Your task to perform on an android device: see sites visited before in the chrome app Image 0: 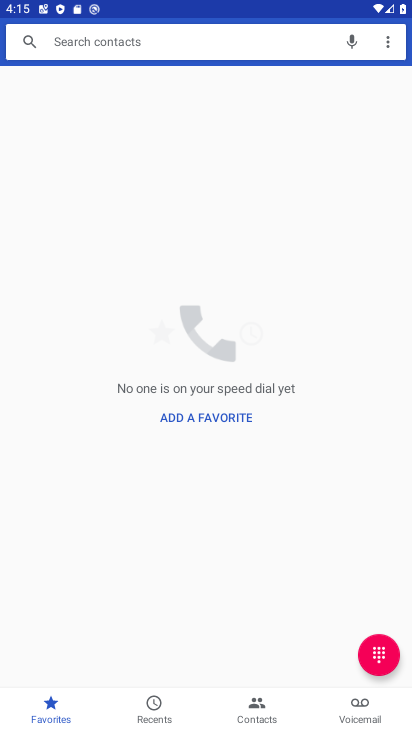
Step 0: press home button
Your task to perform on an android device: see sites visited before in the chrome app Image 1: 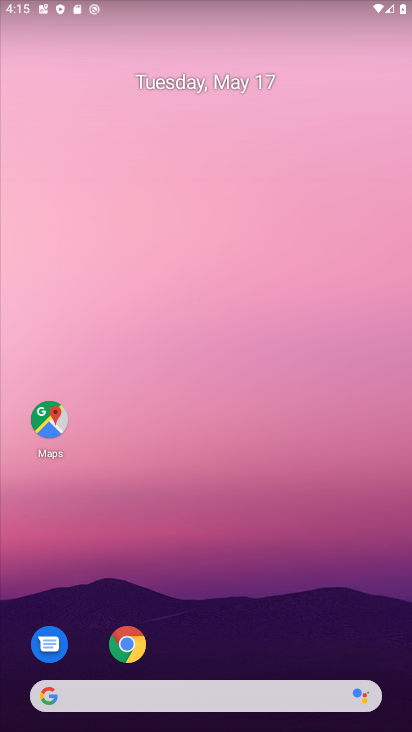
Step 1: drag from (249, 522) to (212, 118)
Your task to perform on an android device: see sites visited before in the chrome app Image 2: 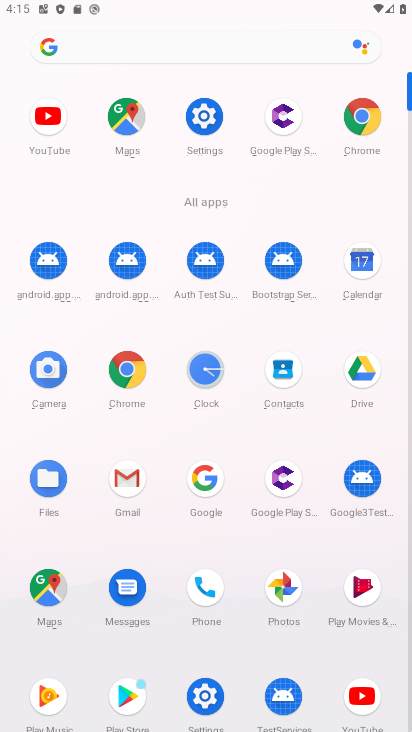
Step 2: click (369, 129)
Your task to perform on an android device: see sites visited before in the chrome app Image 3: 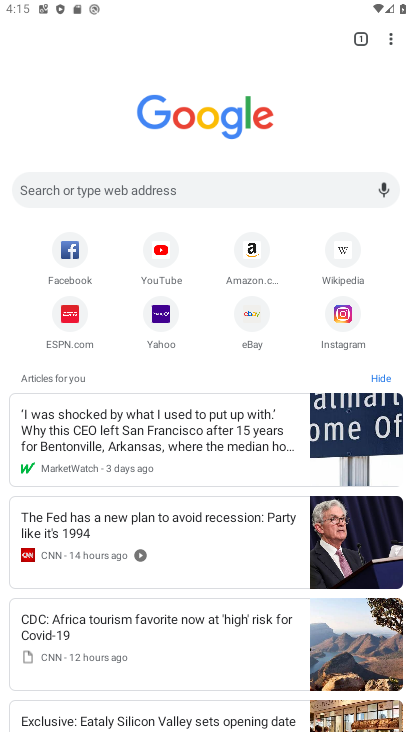
Step 3: click (387, 46)
Your task to perform on an android device: see sites visited before in the chrome app Image 4: 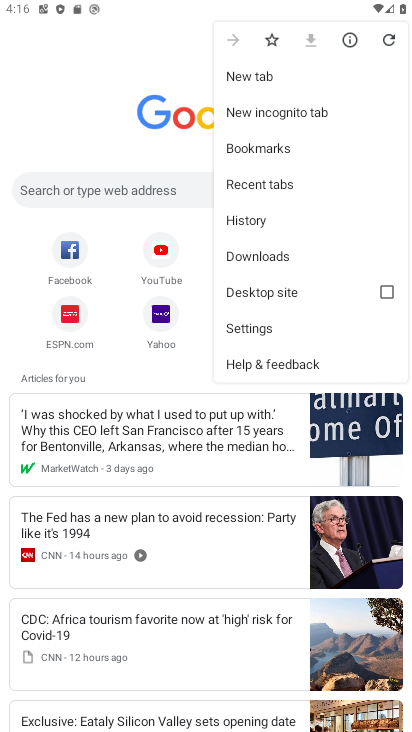
Step 4: click (279, 217)
Your task to perform on an android device: see sites visited before in the chrome app Image 5: 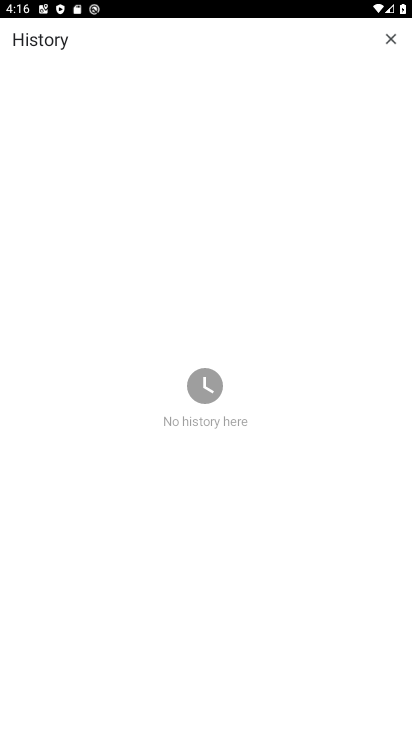
Step 5: task complete